Your task to perform on an android device: Is it going to rain today? Image 0: 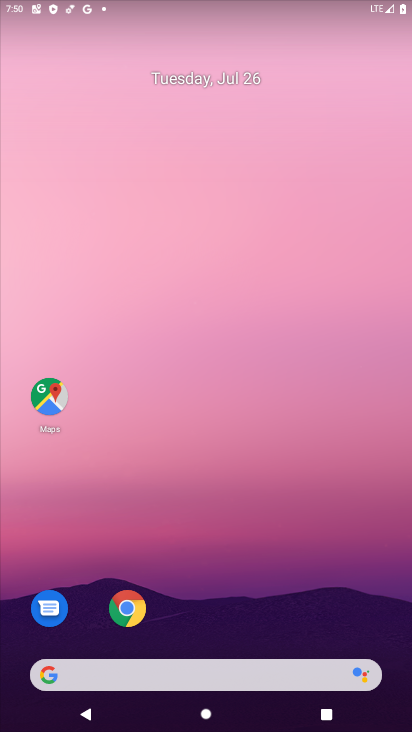
Step 0: drag from (224, 133) to (234, 174)
Your task to perform on an android device: Is it going to rain today? Image 1: 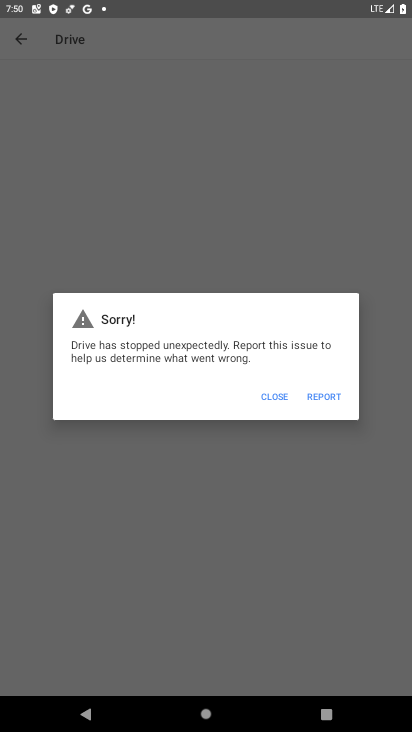
Step 1: drag from (240, 711) to (228, 203)
Your task to perform on an android device: Is it going to rain today? Image 2: 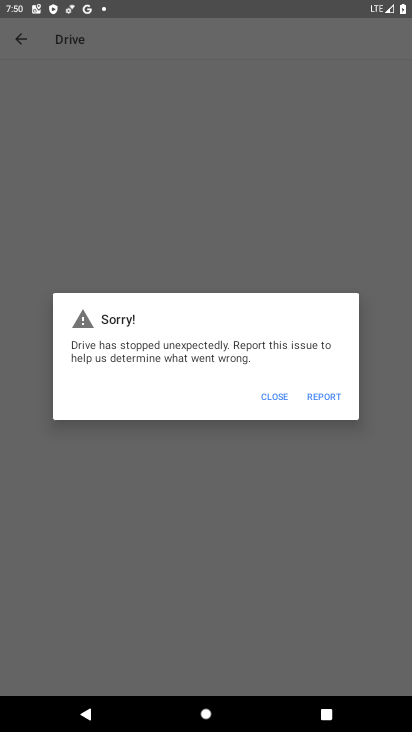
Step 2: click (262, 390)
Your task to perform on an android device: Is it going to rain today? Image 3: 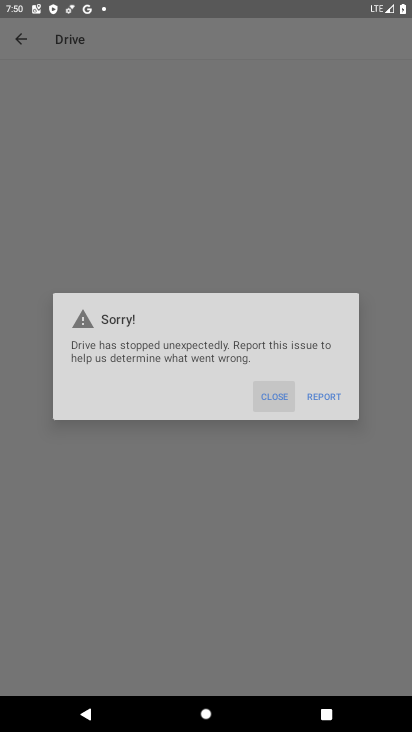
Step 3: click (264, 389)
Your task to perform on an android device: Is it going to rain today? Image 4: 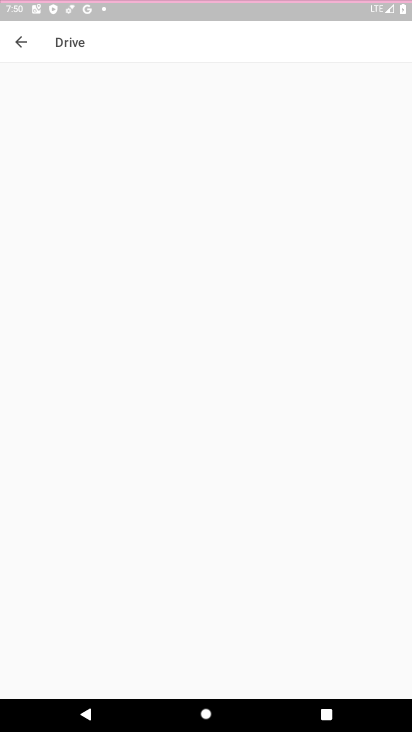
Step 4: click (265, 395)
Your task to perform on an android device: Is it going to rain today? Image 5: 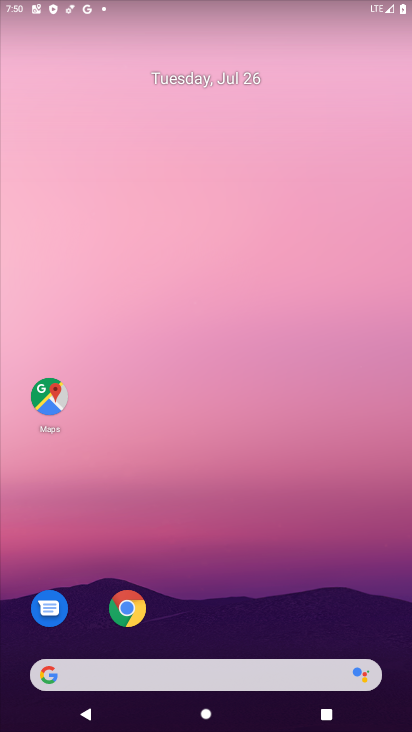
Step 5: drag from (232, 396) to (198, 144)
Your task to perform on an android device: Is it going to rain today? Image 6: 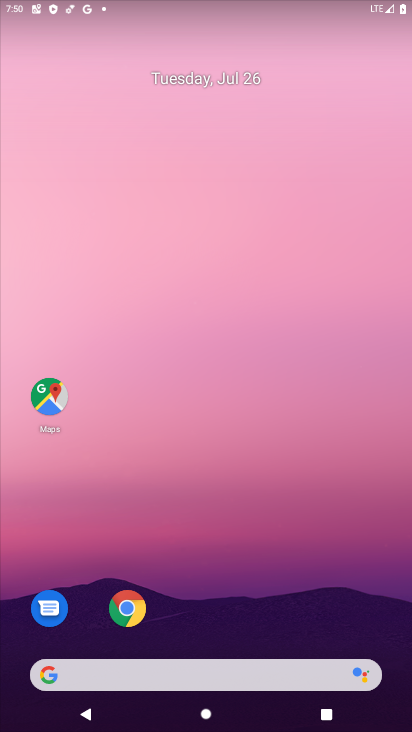
Step 6: drag from (199, 666) to (215, 207)
Your task to perform on an android device: Is it going to rain today? Image 7: 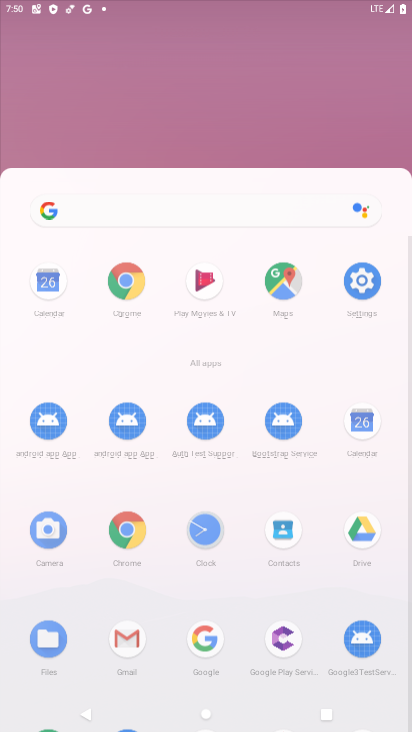
Step 7: drag from (224, 624) to (185, 302)
Your task to perform on an android device: Is it going to rain today? Image 8: 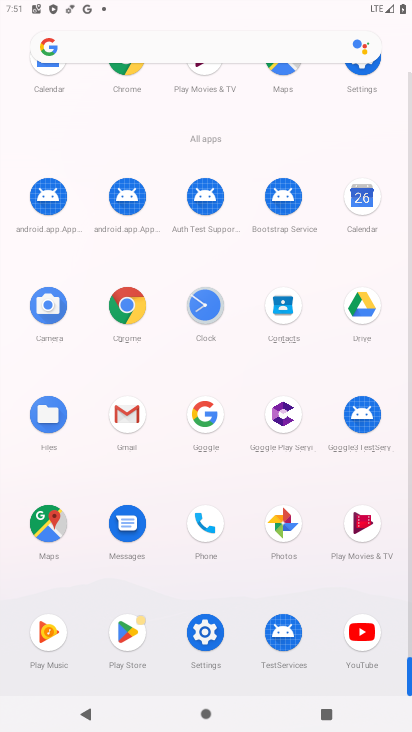
Step 8: drag from (213, 182) to (241, 536)
Your task to perform on an android device: Is it going to rain today? Image 9: 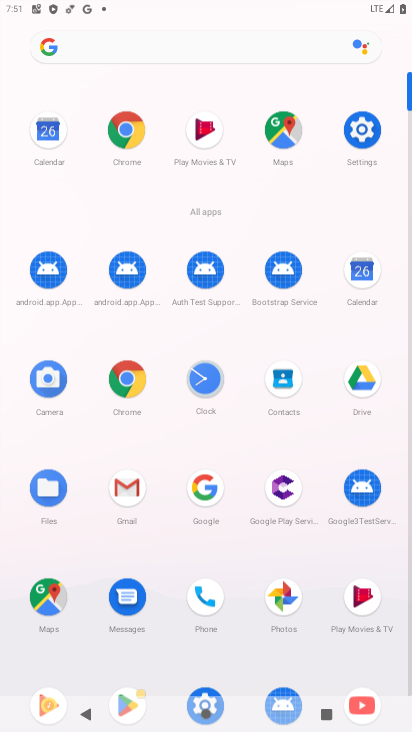
Step 9: drag from (223, 281) to (223, 548)
Your task to perform on an android device: Is it going to rain today? Image 10: 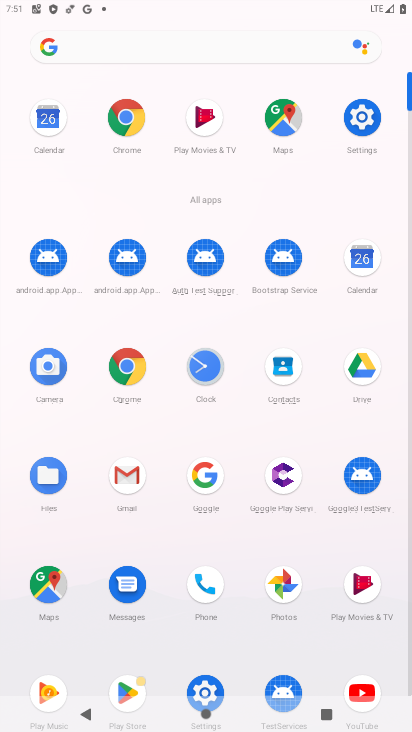
Step 10: click (129, 369)
Your task to perform on an android device: Is it going to rain today? Image 11: 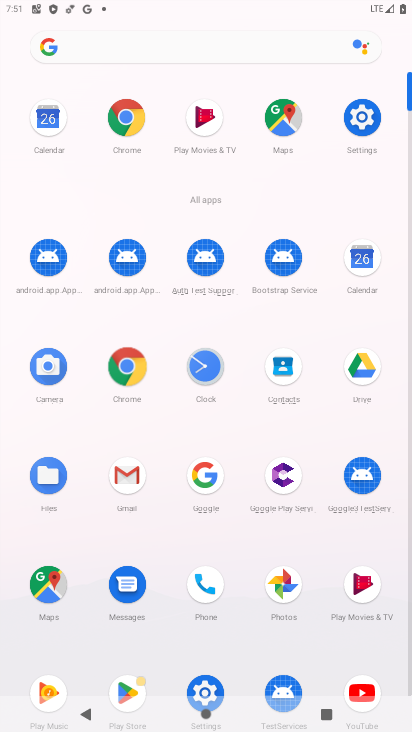
Step 11: click (129, 369)
Your task to perform on an android device: Is it going to rain today? Image 12: 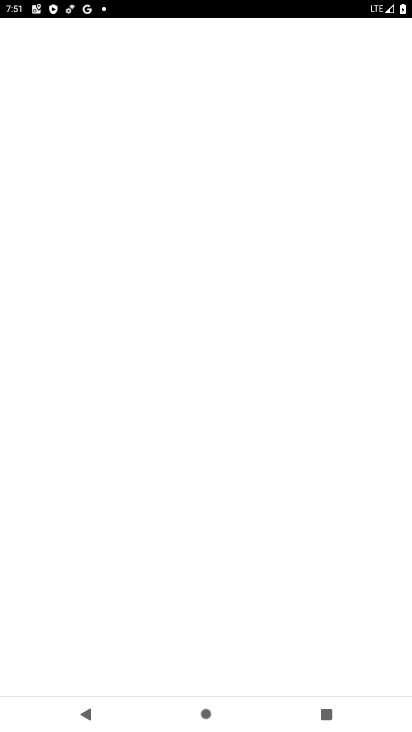
Step 12: click (129, 369)
Your task to perform on an android device: Is it going to rain today? Image 13: 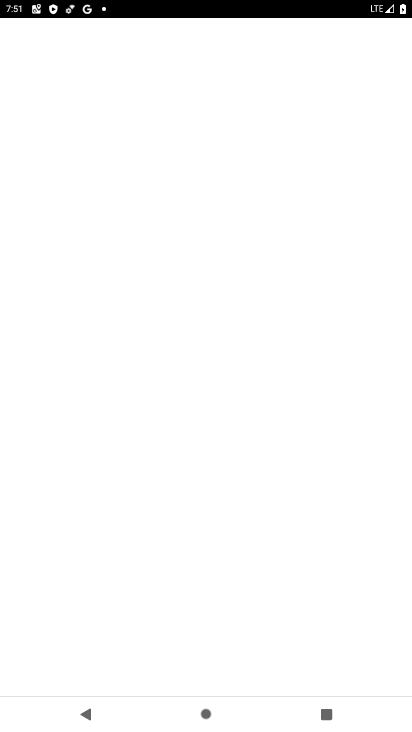
Step 13: click (129, 371)
Your task to perform on an android device: Is it going to rain today? Image 14: 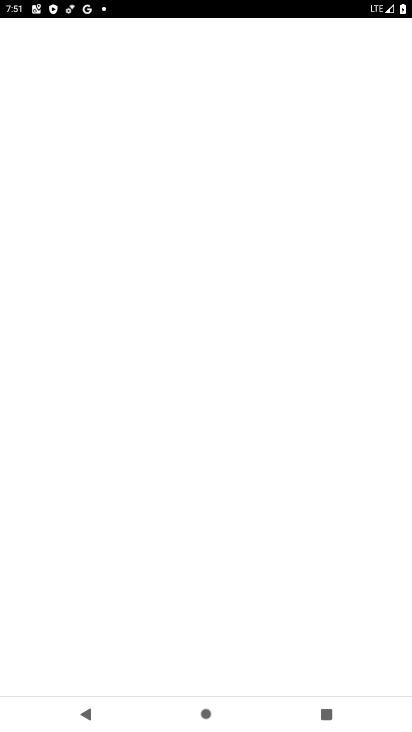
Step 14: click (130, 375)
Your task to perform on an android device: Is it going to rain today? Image 15: 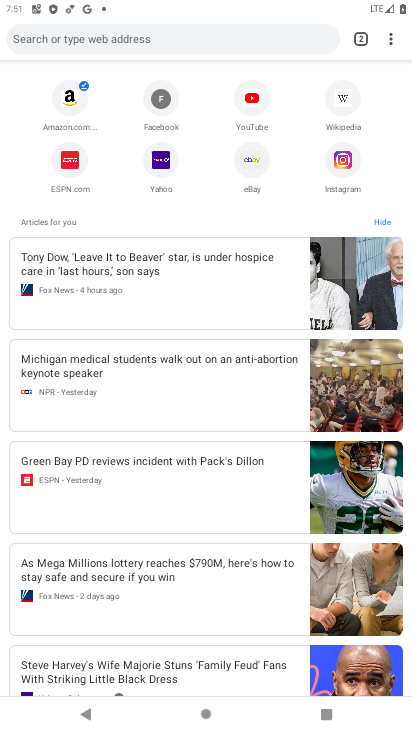
Step 15: click (37, 30)
Your task to perform on an android device: Is it going to rain today? Image 16: 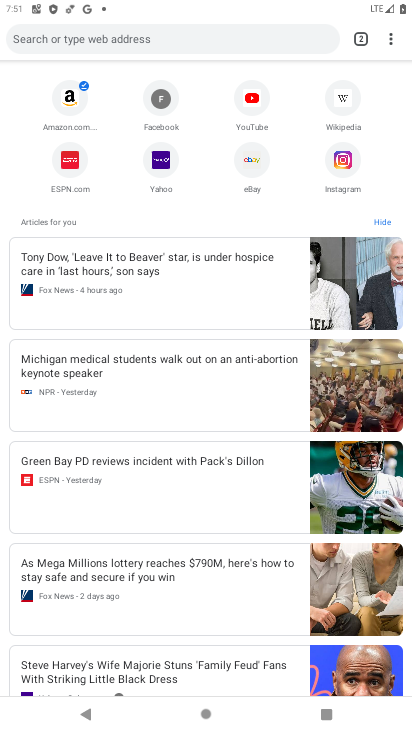
Step 16: click (37, 30)
Your task to perform on an android device: Is it going to rain today? Image 17: 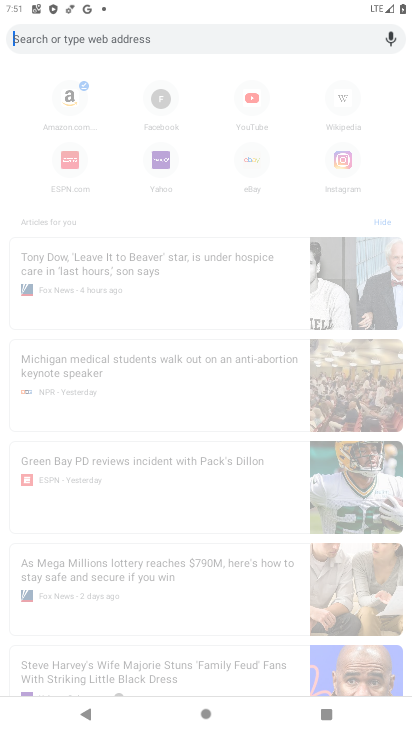
Step 17: click (37, 30)
Your task to perform on an android device: Is it going to rain today? Image 18: 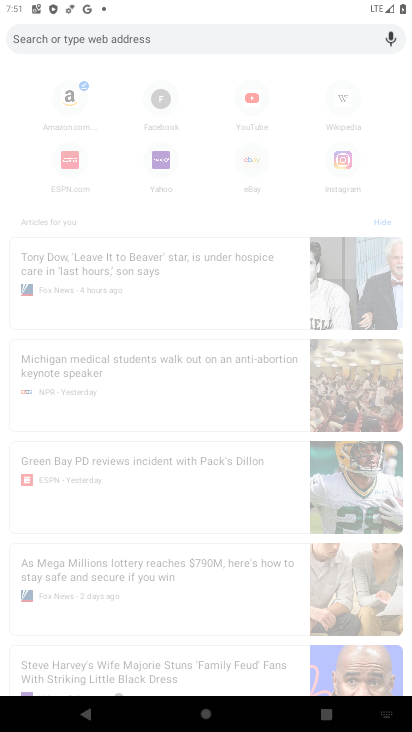
Step 18: click (37, 30)
Your task to perform on an android device: Is it going to rain today? Image 19: 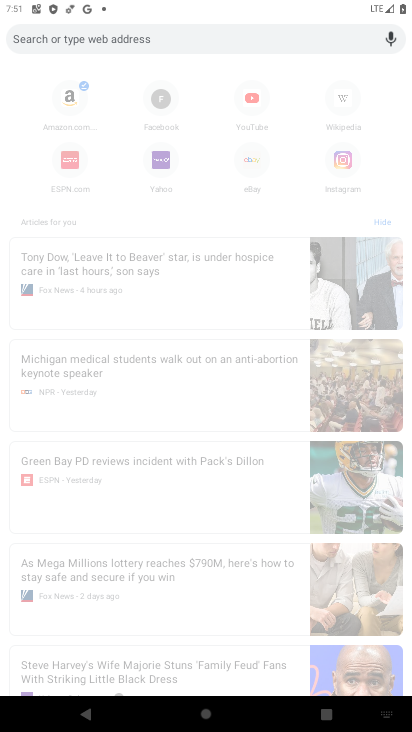
Step 19: click (37, 30)
Your task to perform on an android device: Is it going to rain today? Image 20: 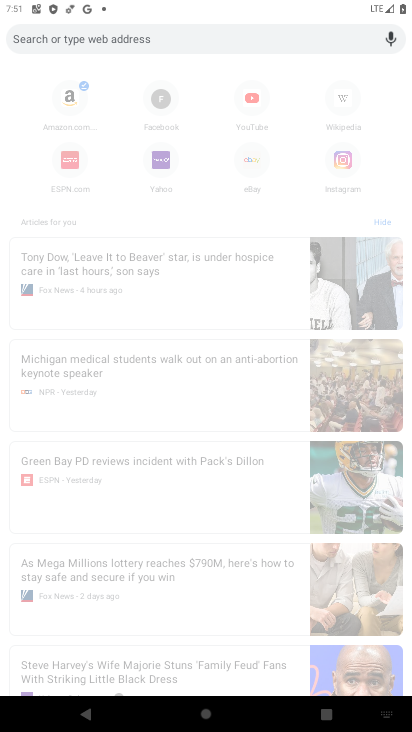
Step 20: click (37, 31)
Your task to perform on an android device: Is it going to rain today? Image 21: 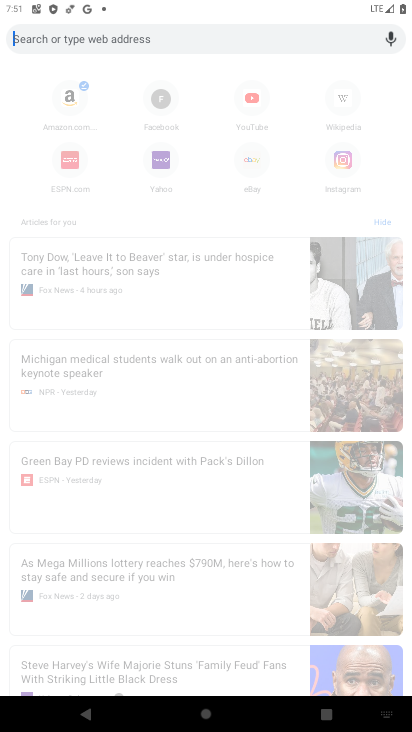
Step 21: type "is it going  to rain today?"
Your task to perform on an android device: Is it going to rain today? Image 22: 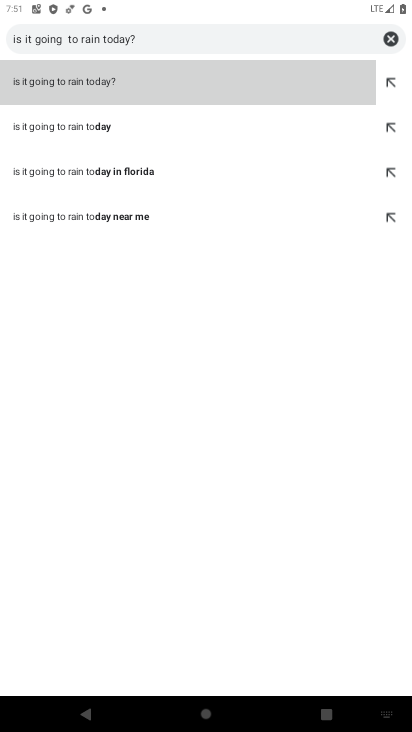
Step 22: click (156, 43)
Your task to perform on an android device: Is it going to rain today? Image 23: 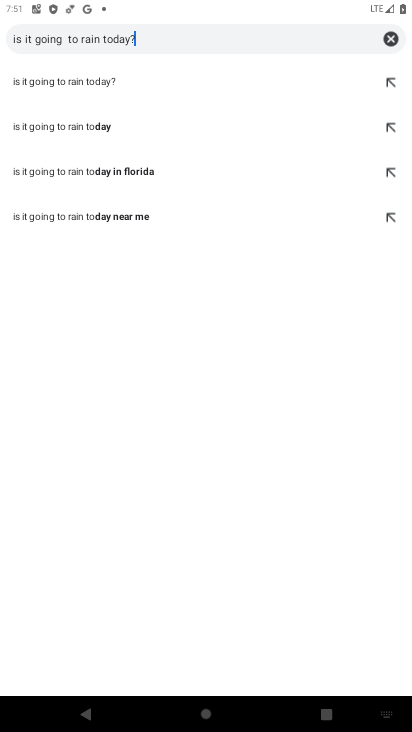
Step 23: click (163, 42)
Your task to perform on an android device: Is it going to rain today? Image 24: 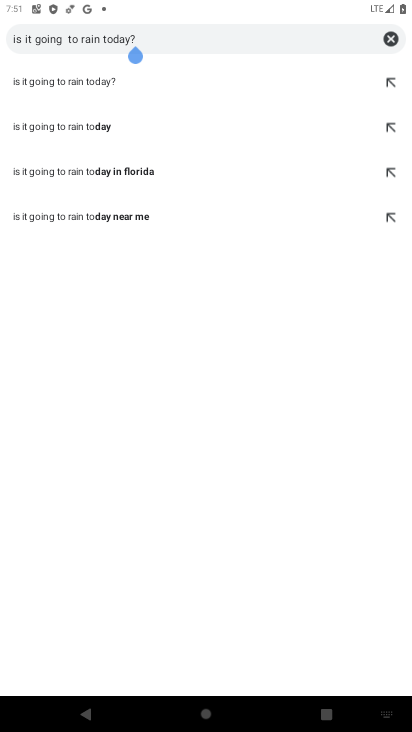
Step 24: click (167, 38)
Your task to perform on an android device: Is it going to rain today? Image 25: 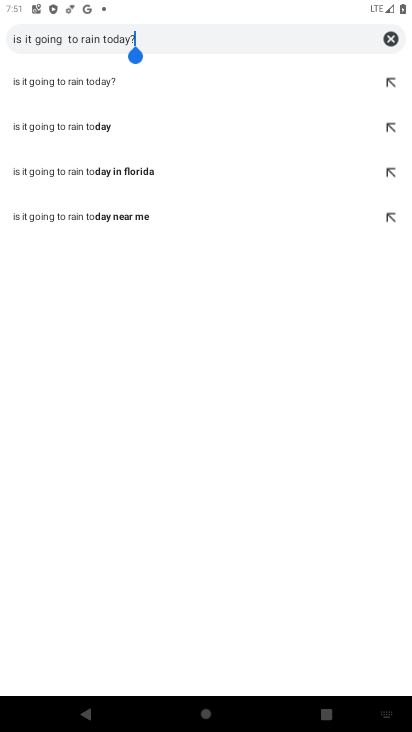
Step 25: click (74, 92)
Your task to perform on an android device: Is it going to rain today? Image 26: 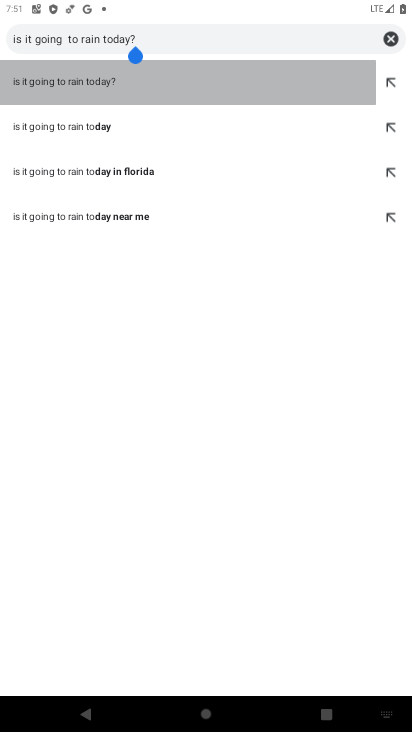
Step 26: click (74, 92)
Your task to perform on an android device: Is it going to rain today? Image 27: 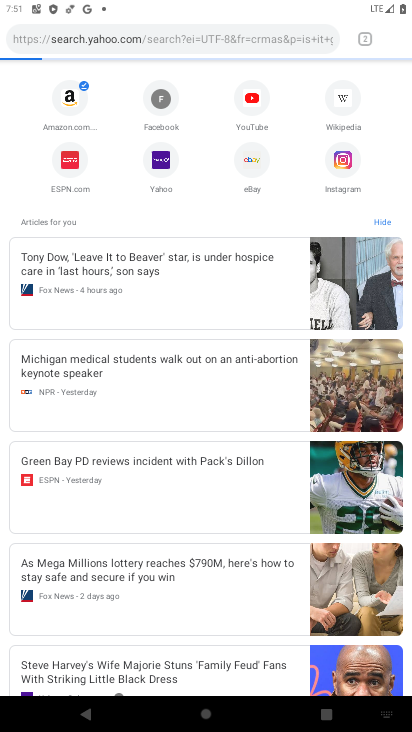
Step 27: click (74, 92)
Your task to perform on an android device: Is it going to rain today? Image 28: 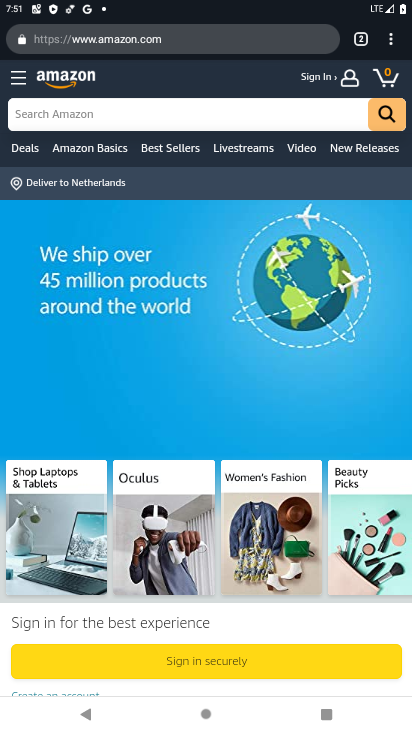
Step 28: task complete